Your task to perform on an android device: move a message to another label in the gmail app Image 0: 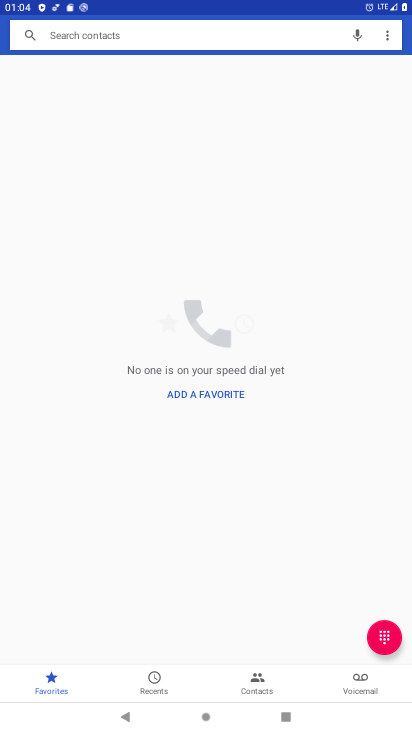
Step 0: press home button
Your task to perform on an android device: move a message to another label in the gmail app Image 1: 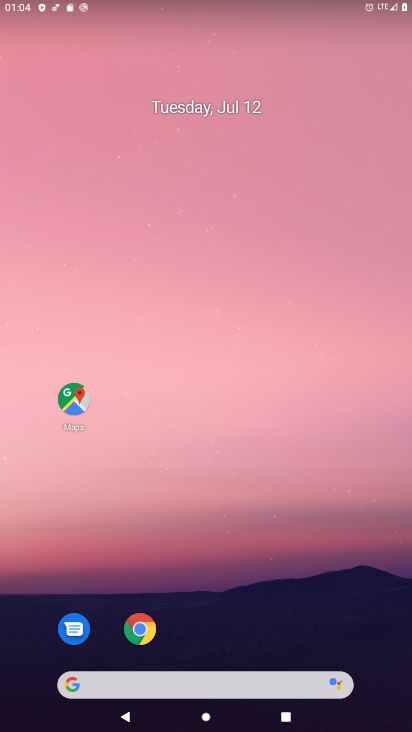
Step 1: drag from (27, 696) to (257, 54)
Your task to perform on an android device: move a message to another label in the gmail app Image 2: 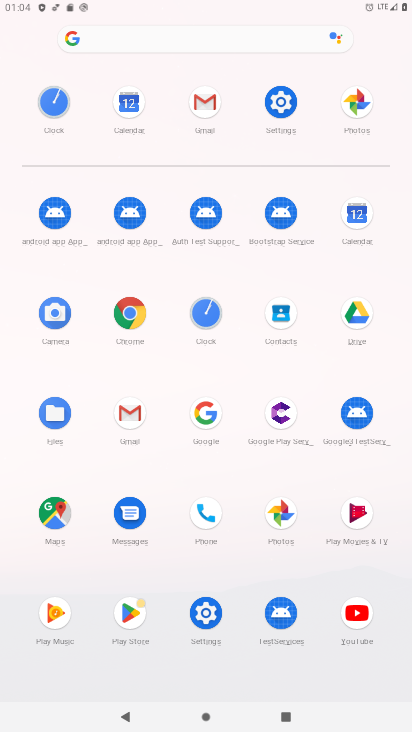
Step 2: click (127, 426)
Your task to perform on an android device: move a message to another label in the gmail app Image 3: 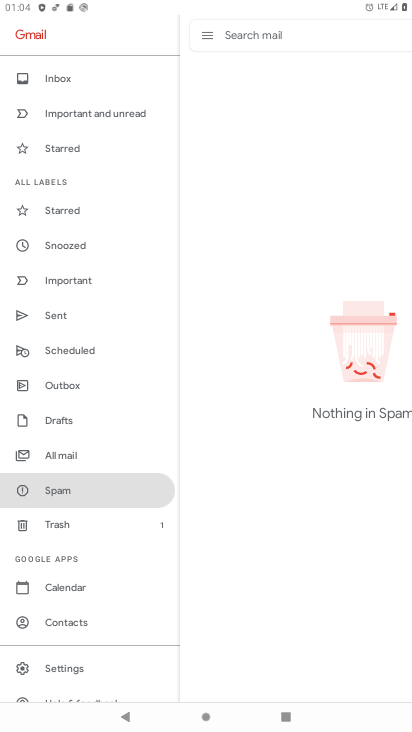
Step 3: click (100, 73)
Your task to perform on an android device: move a message to another label in the gmail app Image 4: 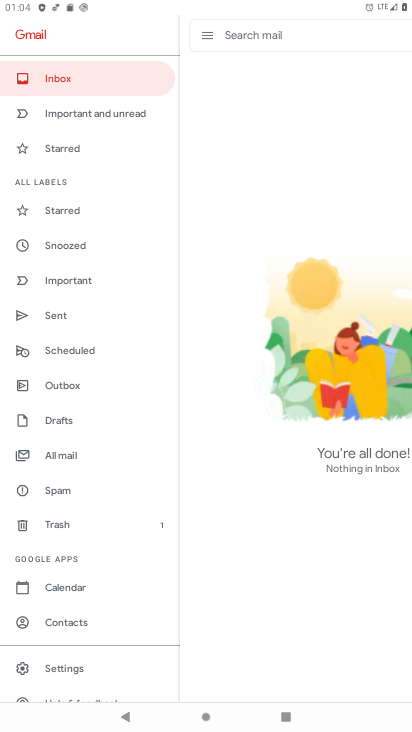
Step 4: task complete